Your task to perform on an android device: Go to eBay Image 0: 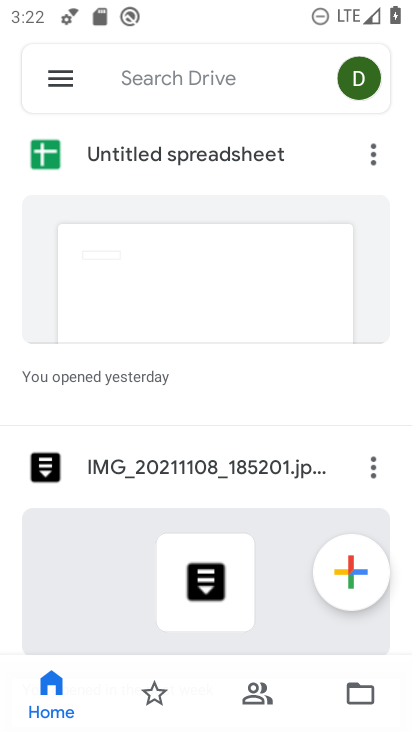
Step 0: press home button
Your task to perform on an android device: Go to eBay Image 1: 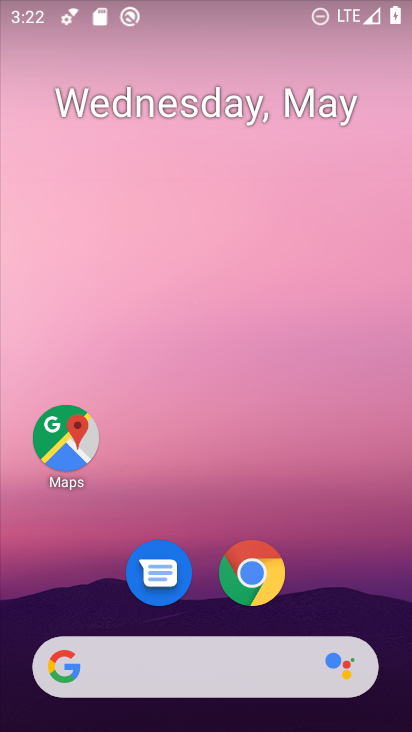
Step 1: click (248, 573)
Your task to perform on an android device: Go to eBay Image 2: 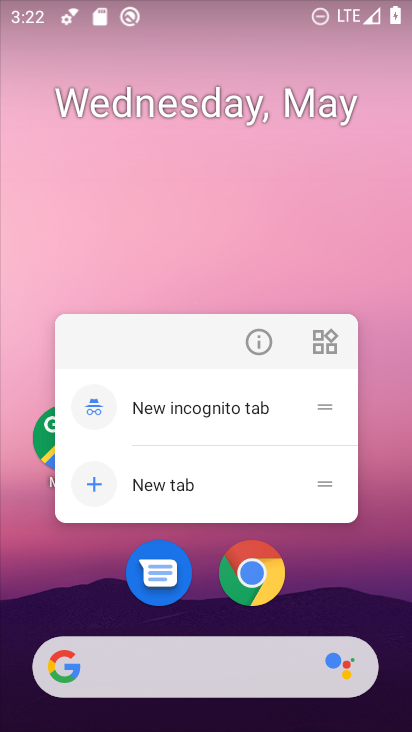
Step 2: click (249, 570)
Your task to perform on an android device: Go to eBay Image 3: 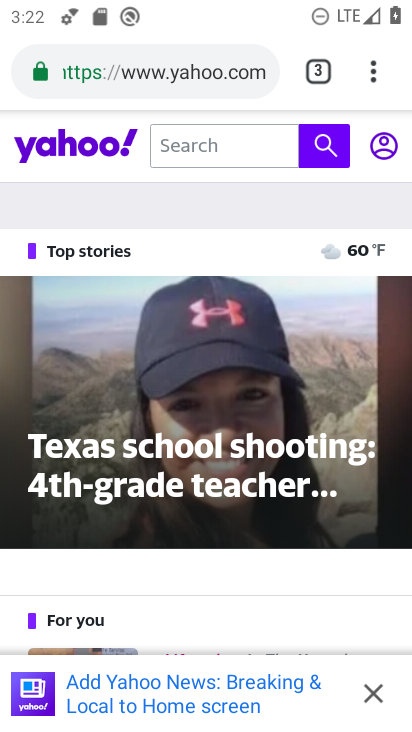
Step 3: click (184, 70)
Your task to perform on an android device: Go to eBay Image 4: 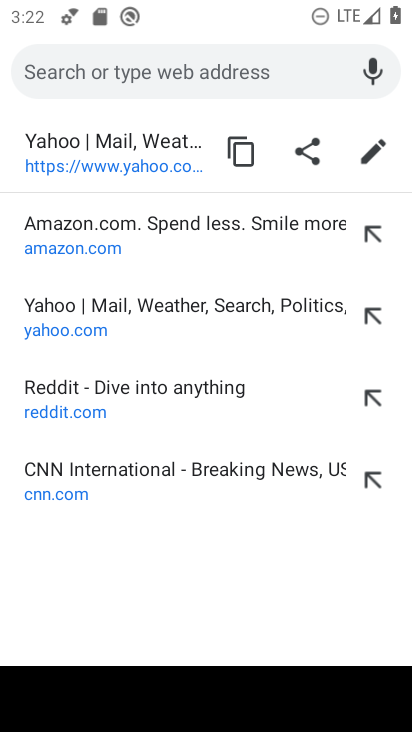
Step 4: type "ebay"
Your task to perform on an android device: Go to eBay Image 5: 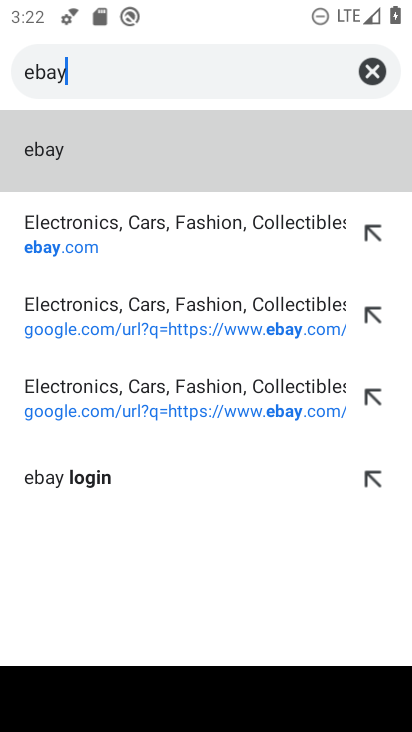
Step 5: click (28, 159)
Your task to perform on an android device: Go to eBay Image 6: 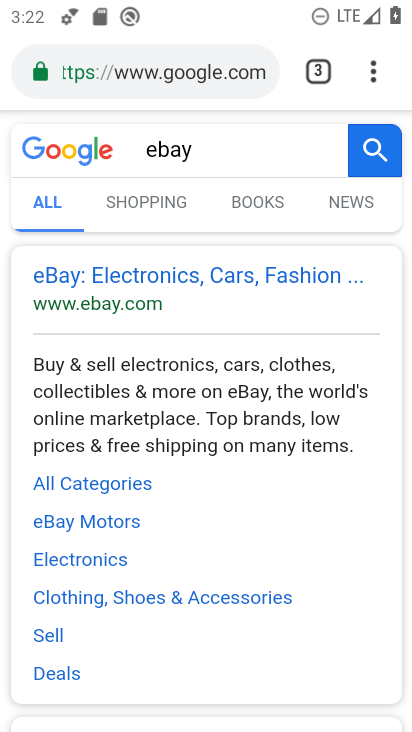
Step 6: click (218, 270)
Your task to perform on an android device: Go to eBay Image 7: 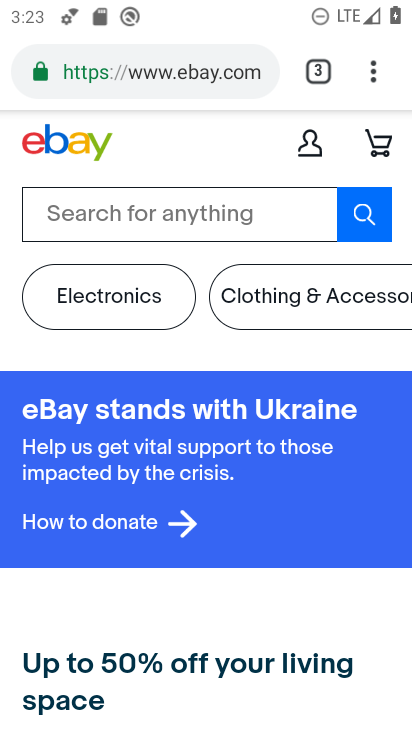
Step 7: task complete